Your task to perform on an android device: What's on my calendar today? Image 0: 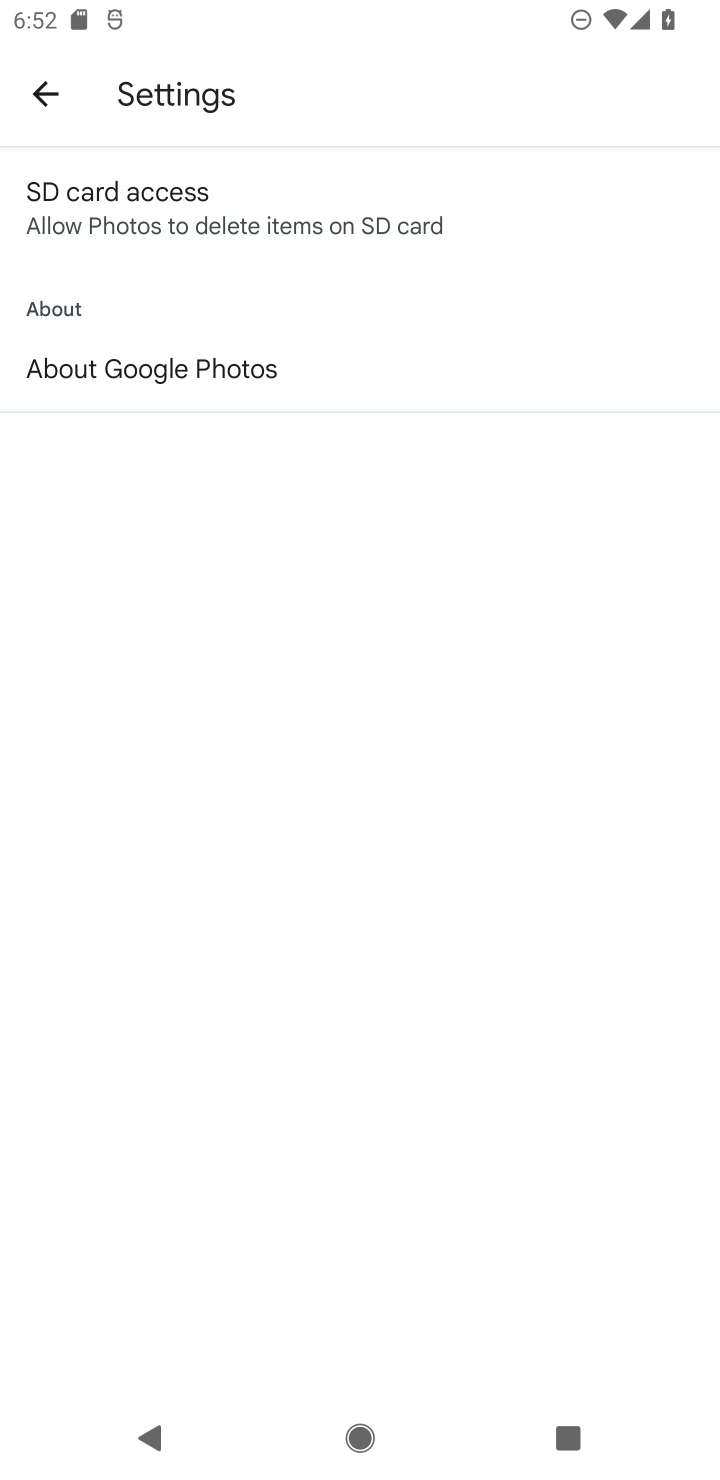
Step 0: press home button
Your task to perform on an android device: What's on my calendar today? Image 1: 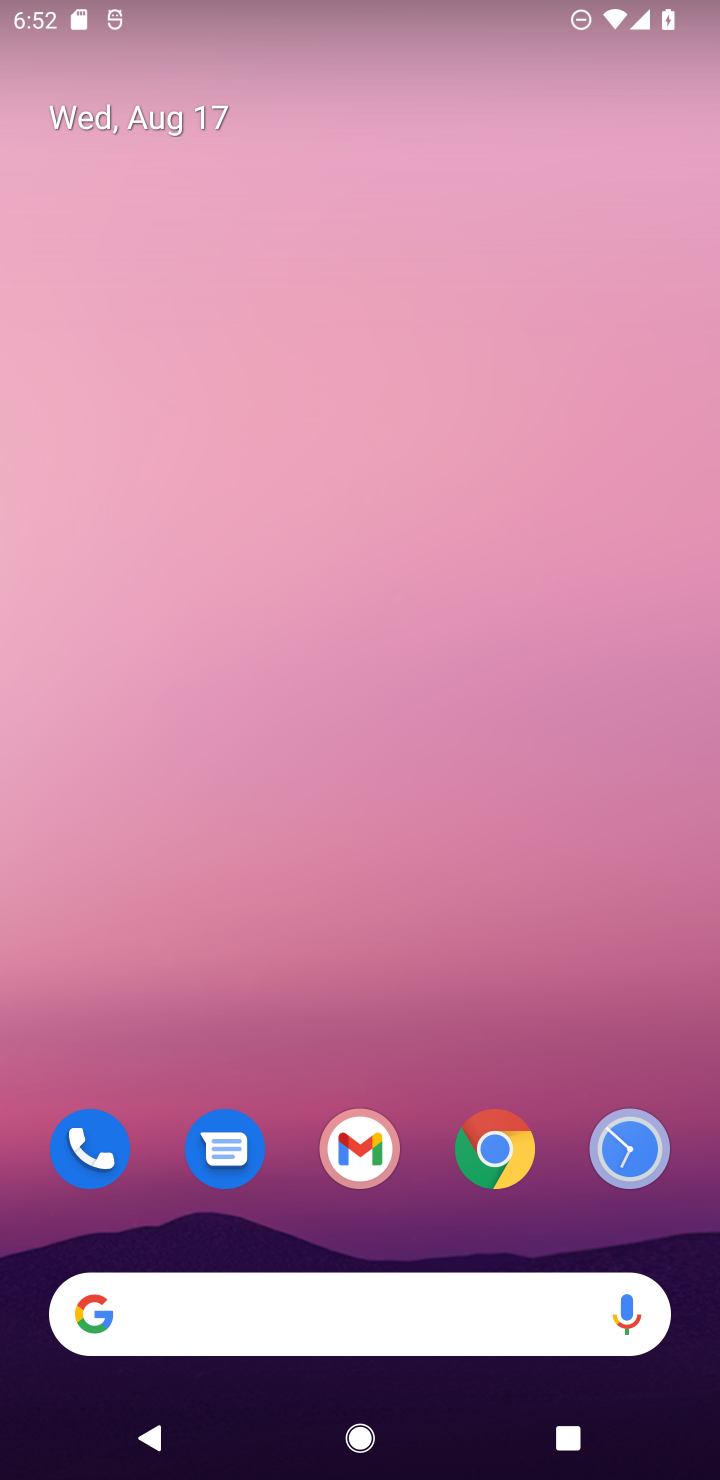
Step 1: drag from (442, 1225) to (299, 377)
Your task to perform on an android device: What's on my calendar today? Image 2: 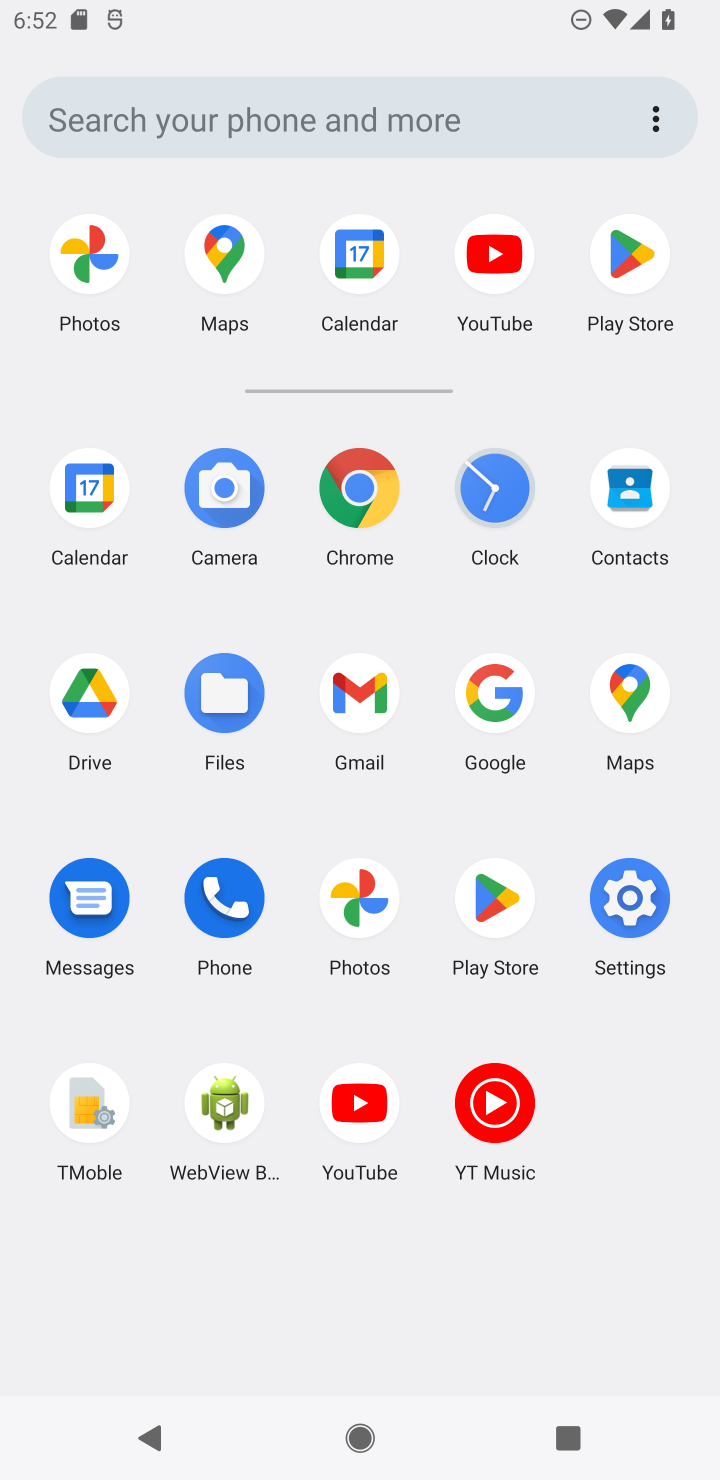
Step 2: click (84, 486)
Your task to perform on an android device: What's on my calendar today? Image 3: 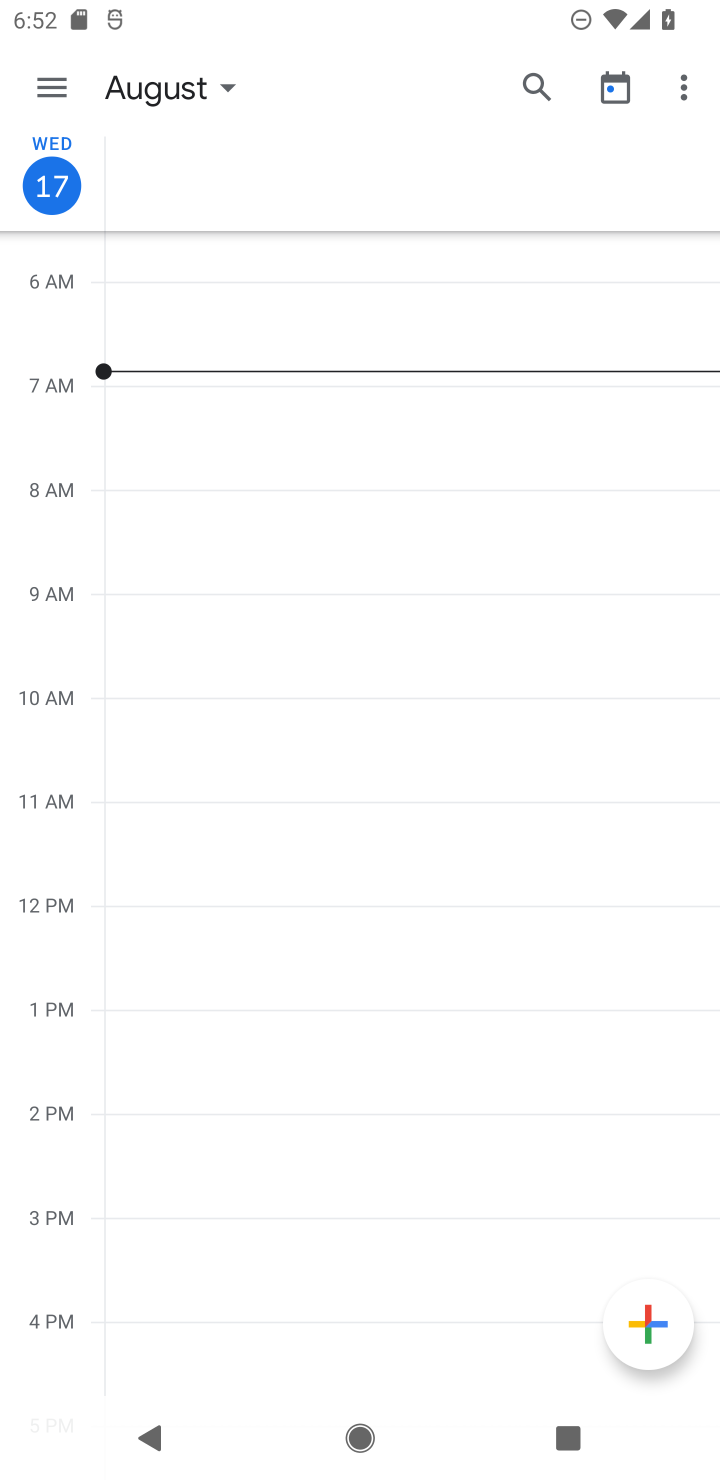
Step 3: task complete